Your task to perform on an android device: turn off picture-in-picture Image 0: 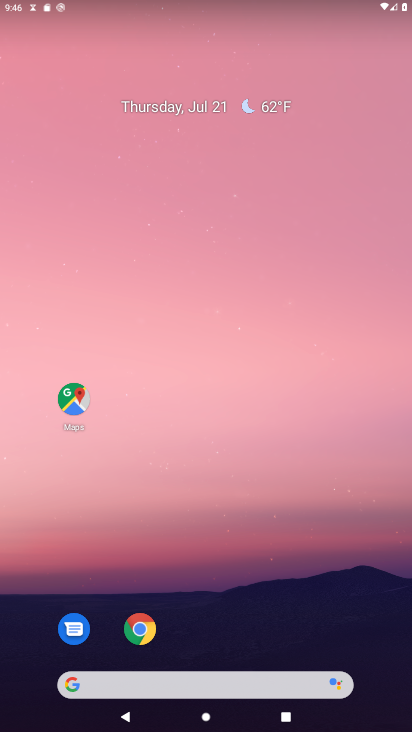
Step 0: drag from (306, 615) to (287, 231)
Your task to perform on an android device: turn off picture-in-picture Image 1: 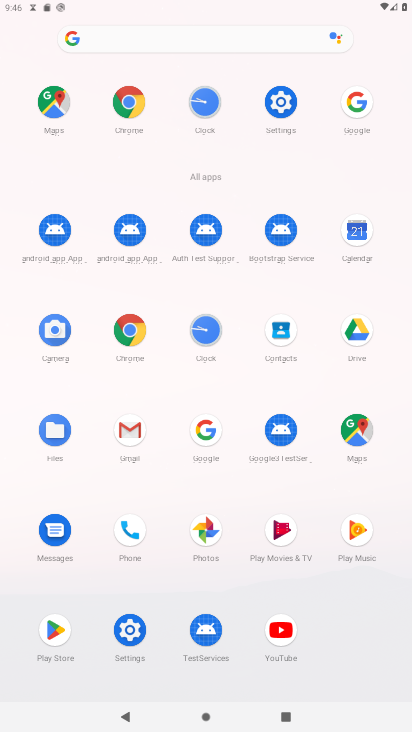
Step 1: click (280, 99)
Your task to perform on an android device: turn off picture-in-picture Image 2: 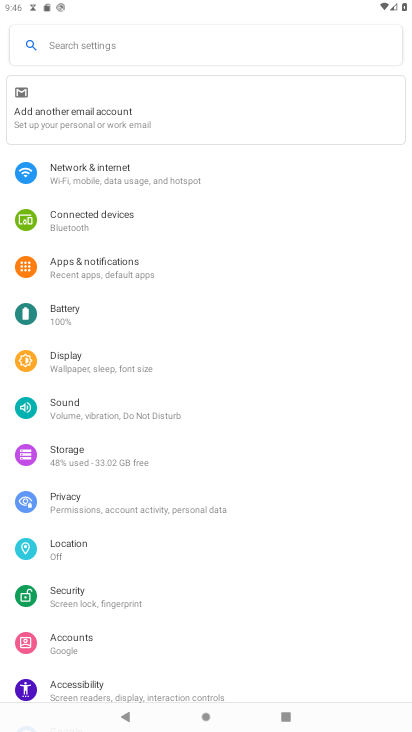
Step 2: click (127, 257)
Your task to perform on an android device: turn off picture-in-picture Image 3: 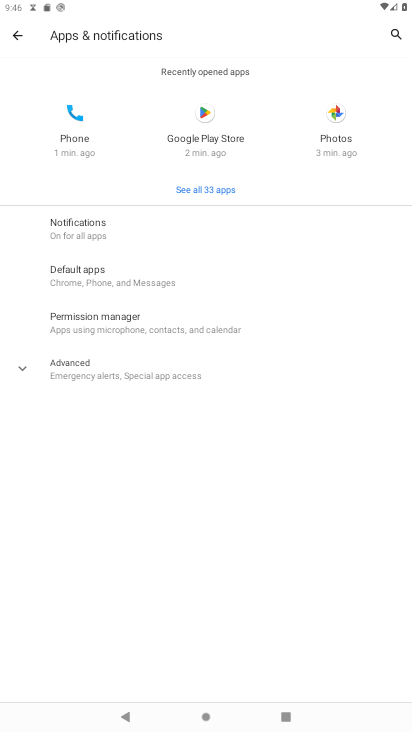
Step 3: click (119, 220)
Your task to perform on an android device: turn off picture-in-picture Image 4: 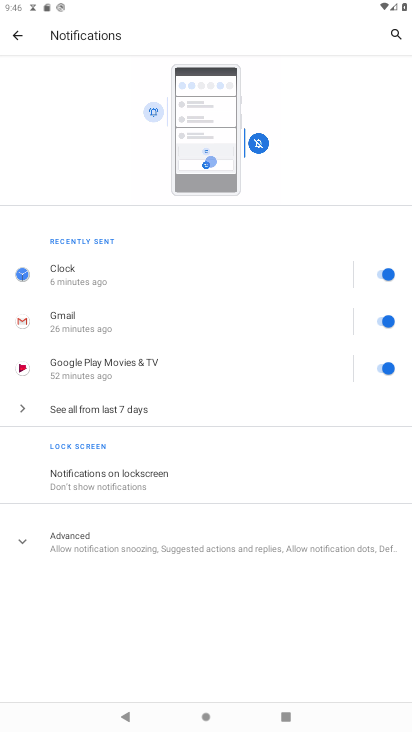
Step 4: click (159, 539)
Your task to perform on an android device: turn off picture-in-picture Image 5: 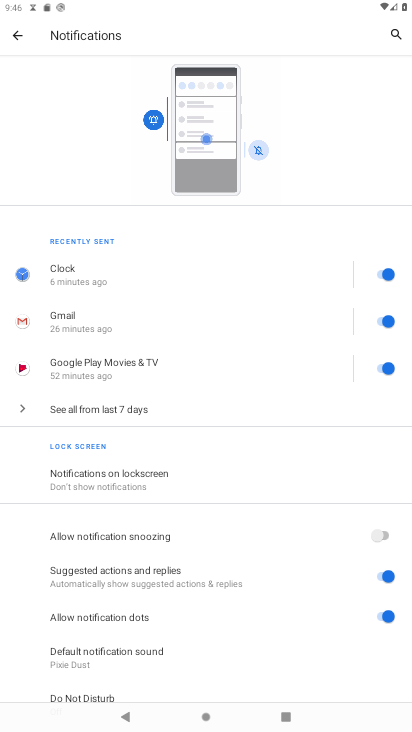
Step 5: drag from (175, 676) to (180, 366)
Your task to perform on an android device: turn off picture-in-picture Image 6: 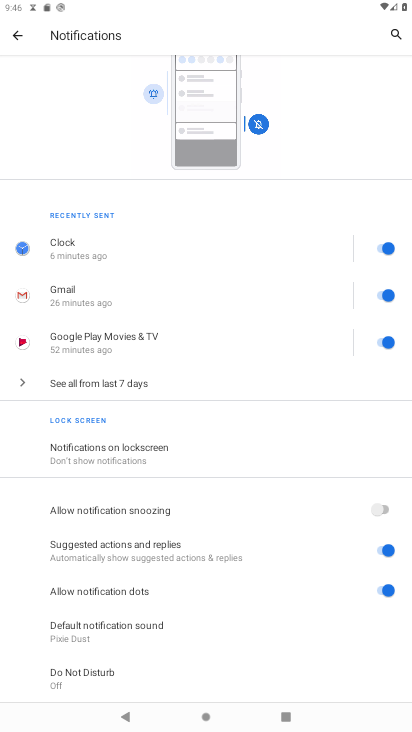
Step 6: click (28, 23)
Your task to perform on an android device: turn off picture-in-picture Image 7: 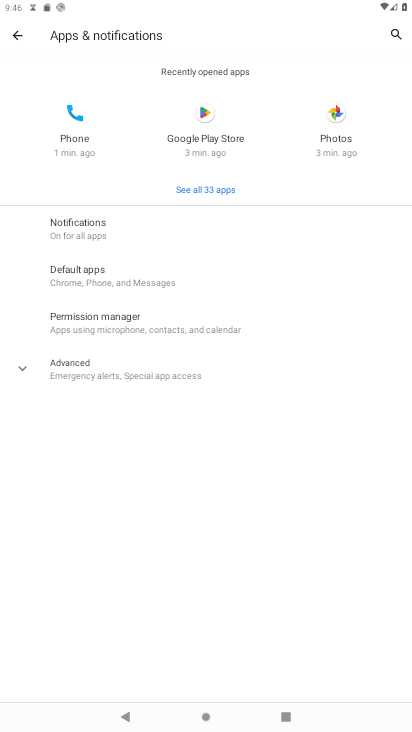
Step 7: click (143, 361)
Your task to perform on an android device: turn off picture-in-picture Image 8: 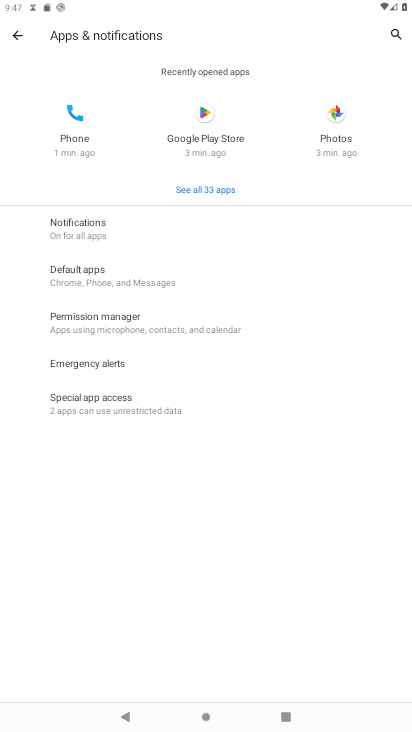
Step 8: click (120, 410)
Your task to perform on an android device: turn off picture-in-picture Image 9: 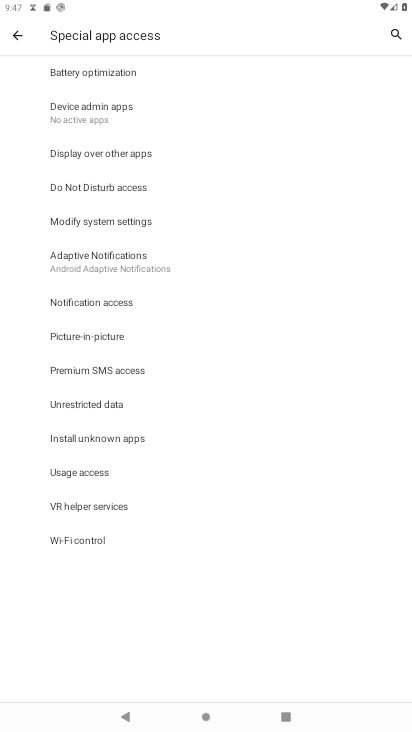
Step 9: click (121, 334)
Your task to perform on an android device: turn off picture-in-picture Image 10: 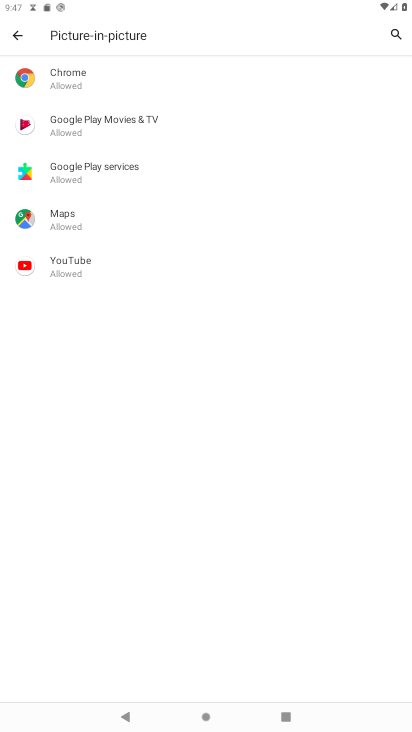
Step 10: click (100, 255)
Your task to perform on an android device: turn off picture-in-picture Image 11: 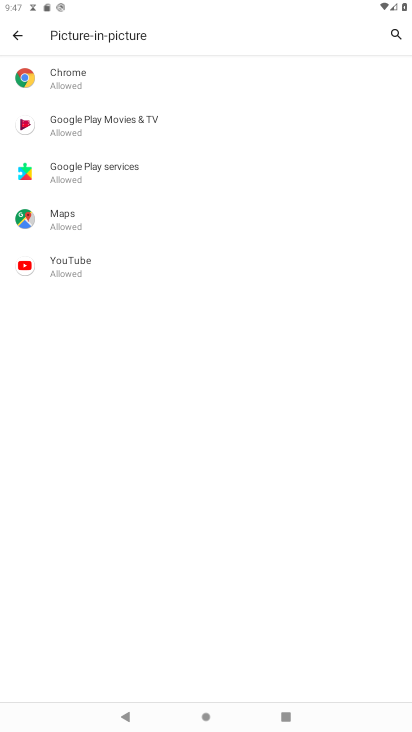
Step 11: click (67, 267)
Your task to perform on an android device: turn off picture-in-picture Image 12: 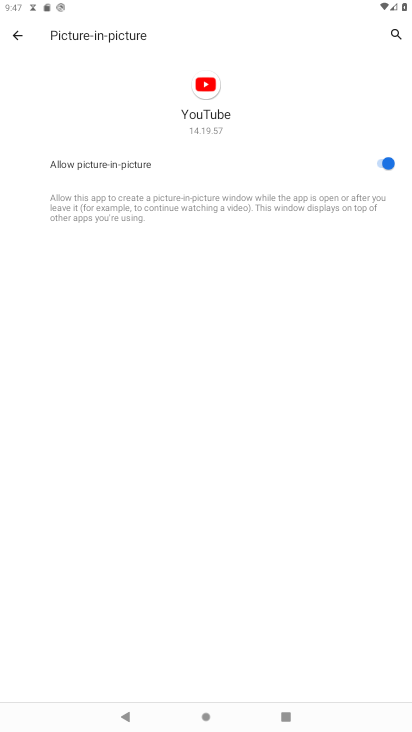
Step 12: click (385, 162)
Your task to perform on an android device: turn off picture-in-picture Image 13: 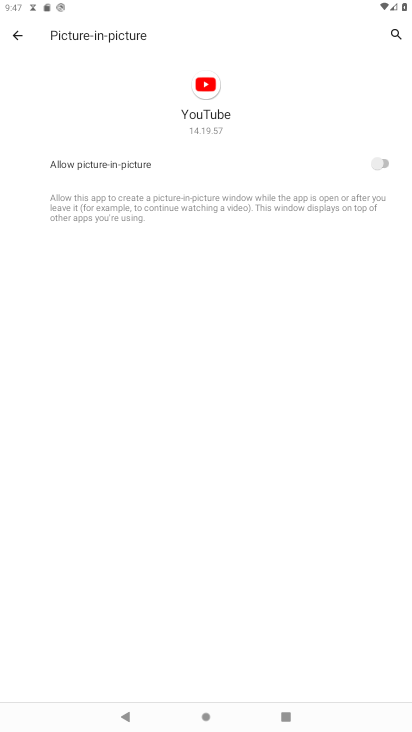
Step 13: task complete